Your task to perform on an android device: open app "Mercado Libre" Image 0: 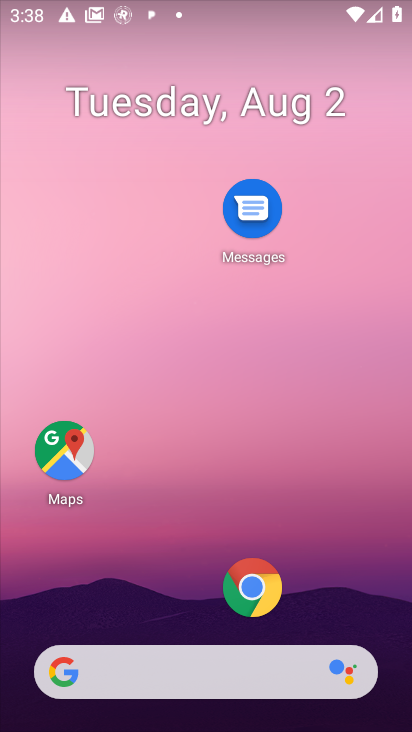
Step 0: drag from (196, 625) to (213, 235)
Your task to perform on an android device: open app "Mercado Libre" Image 1: 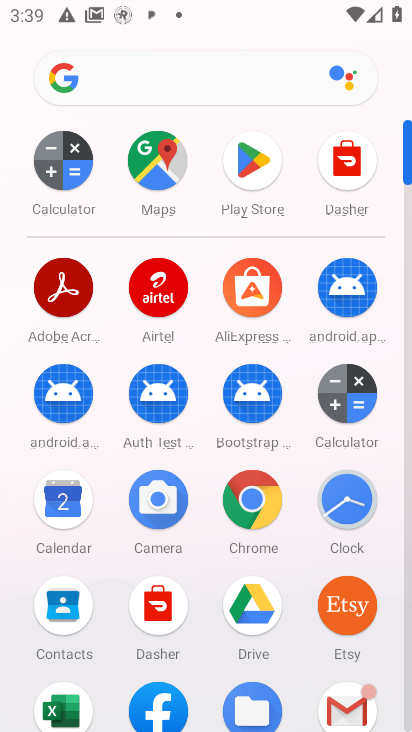
Step 1: click (253, 176)
Your task to perform on an android device: open app "Mercado Libre" Image 2: 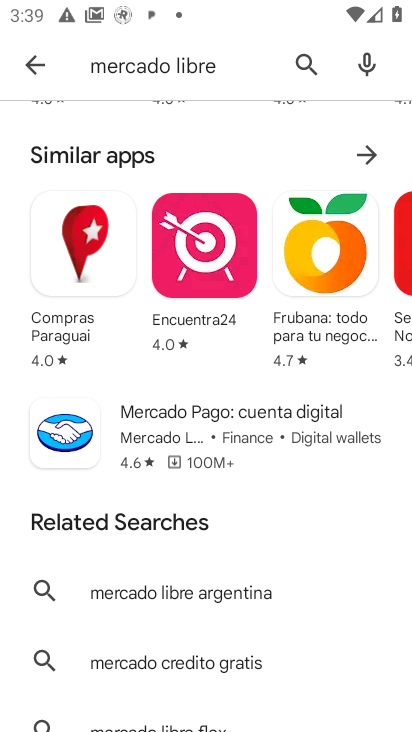
Step 2: task complete